Your task to perform on an android device: Search for sushi restaurants on Maps Image 0: 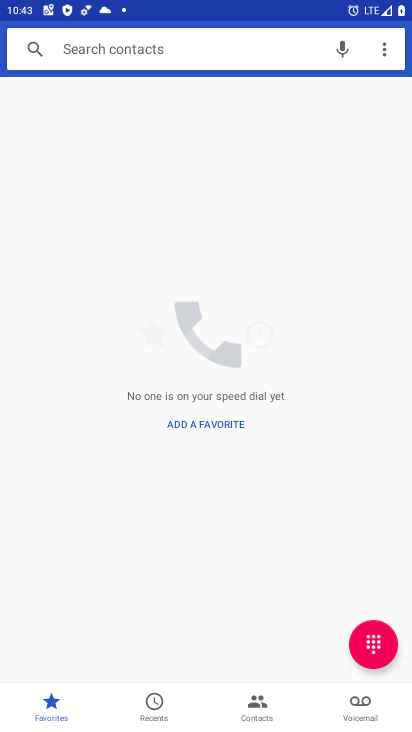
Step 0: press home button
Your task to perform on an android device: Search for sushi restaurants on Maps Image 1: 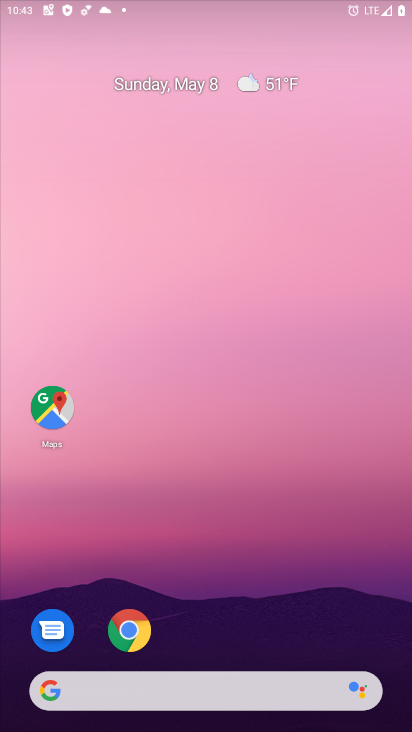
Step 1: drag from (380, 642) to (253, 1)
Your task to perform on an android device: Search for sushi restaurants on Maps Image 2: 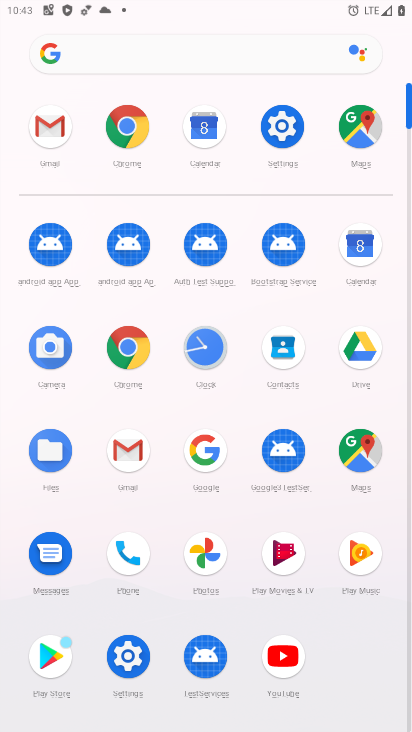
Step 2: click (374, 453)
Your task to perform on an android device: Search for sushi restaurants on Maps Image 3: 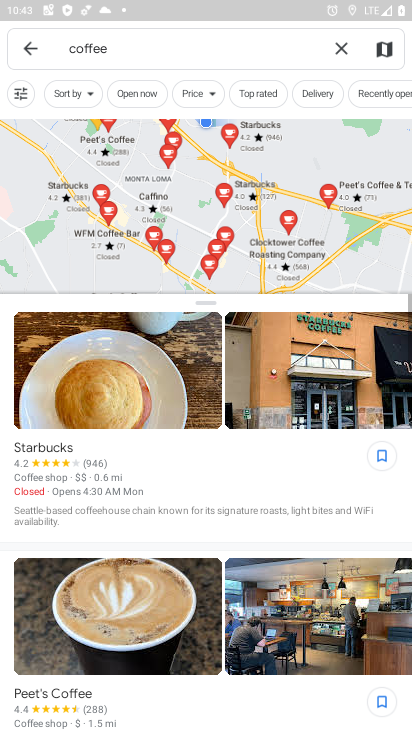
Step 3: click (342, 51)
Your task to perform on an android device: Search for sushi restaurants on Maps Image 4: 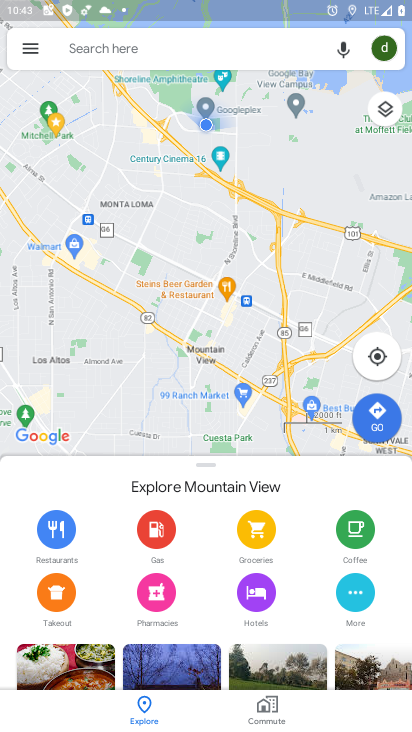
Step 4: click (145, 46)
Your task to perform on an android device: Search for sushi restaurants on Maps Image 5: 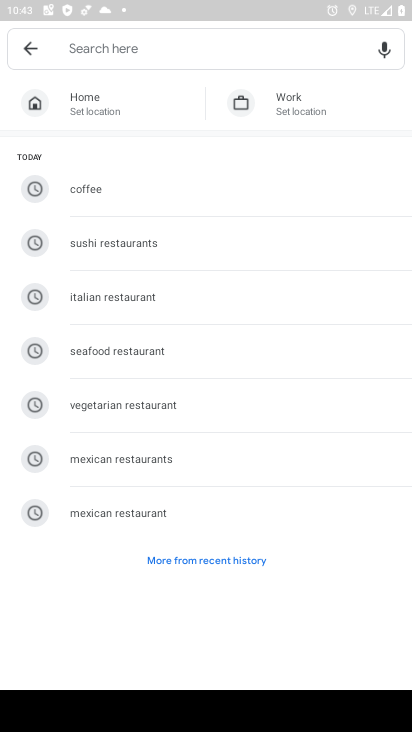
Step 5: click (156, 255)
Your task to perform on an android device: Search for sushi restaurants on Maps Image 6: 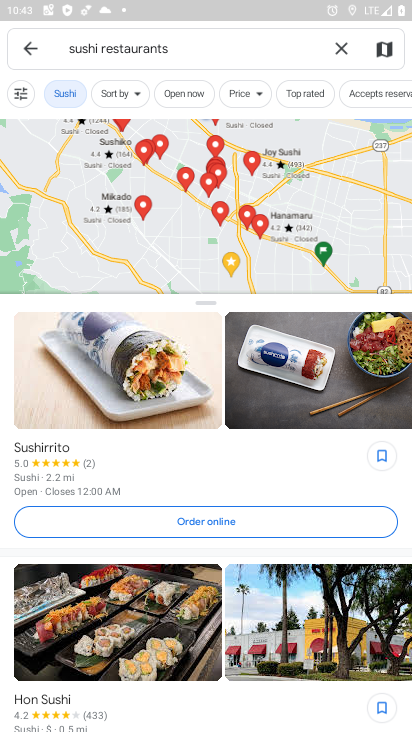
Step 6: task complete